Your task to perform on an android device: Add "acer nitro" to the cart on newegg Image 0: 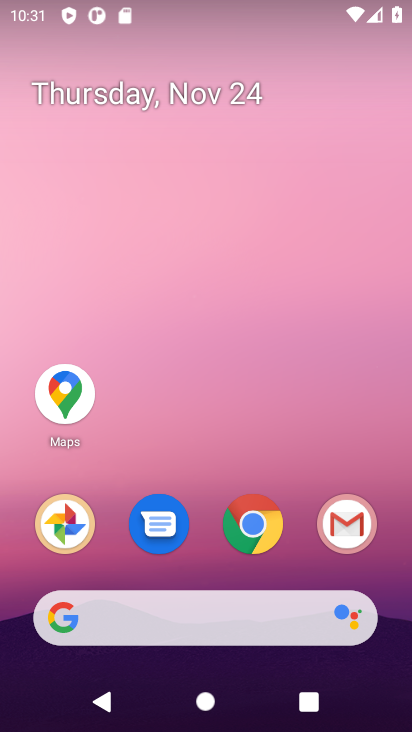
Step 0: click (254, 527)
Your task to perform on an android device: Add "acer nitro" to the cart on newegg Image 1: 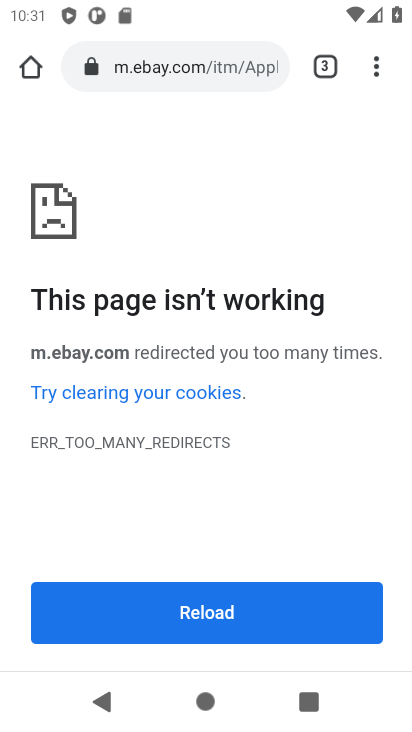
Step 1: click (139, 70)
Your task to perform on an android device: Add "acer nitro" to the cart on newegg Image 2: 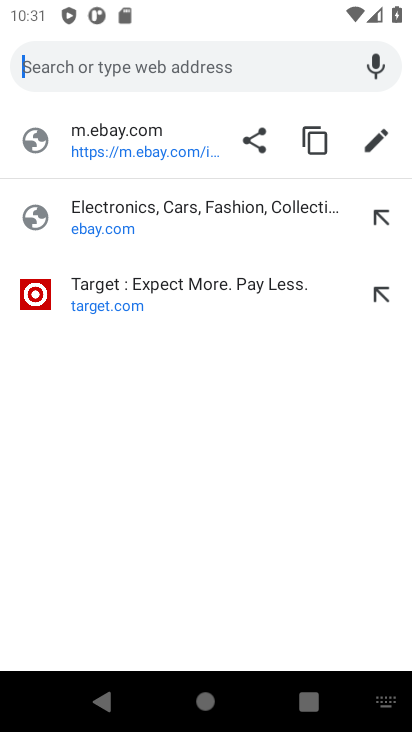
Step 2: type "newegg.com"
Your task to perform on an android device: Add "acer nitro" to the cart on newegg Image 3: 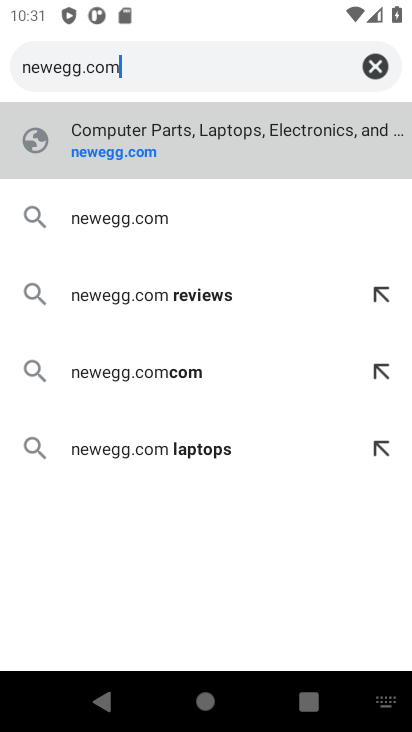
Step 3: click (104, 154)
Your task to perform on an android device: Add "acer nitro" to the cart on newegg Image 4: 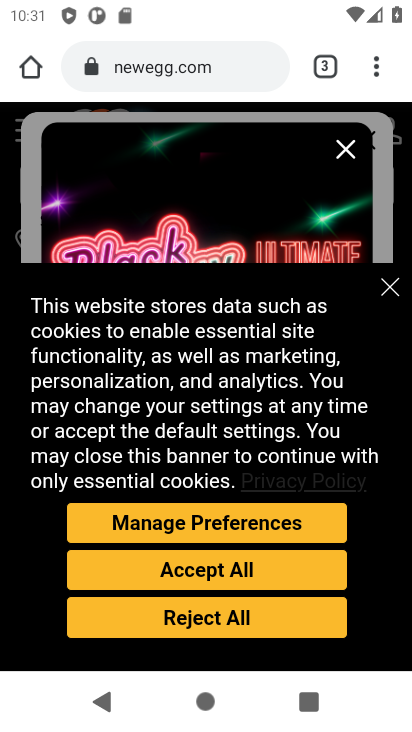
Step 4: click (388, 292)
Your task to perform on an android device: Add "acer nitro" to the cart on newegg Image 5: 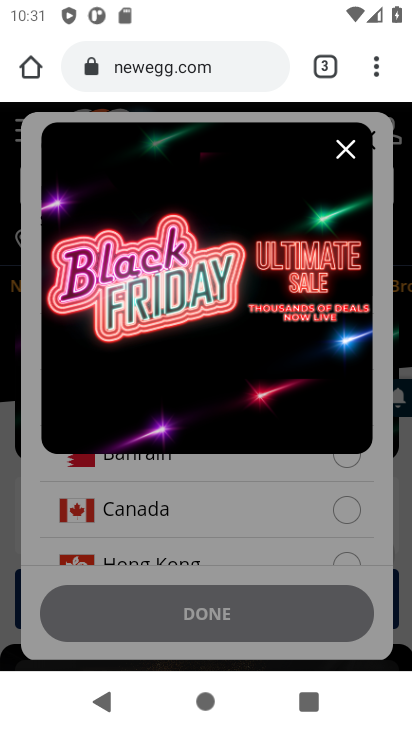
Step 5: click (344, 150)
Your task to perform on an android device: Add "acer nitro" to the cart on newegg Image 6: 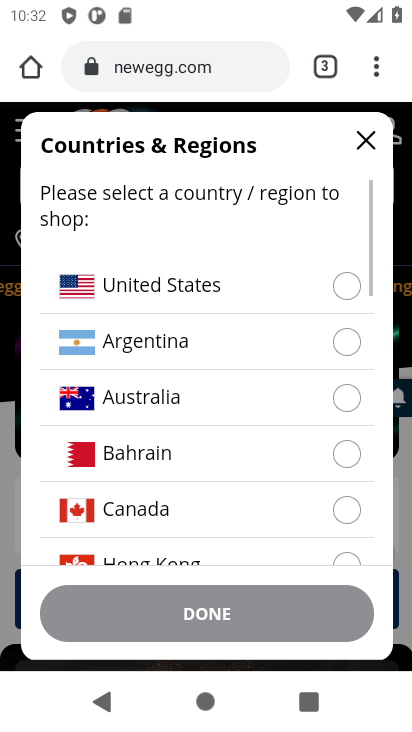
Step 6: click (154, 287)
Your task to perform on an android device: Add "acer nitro" to the cart on newegg Image 7: 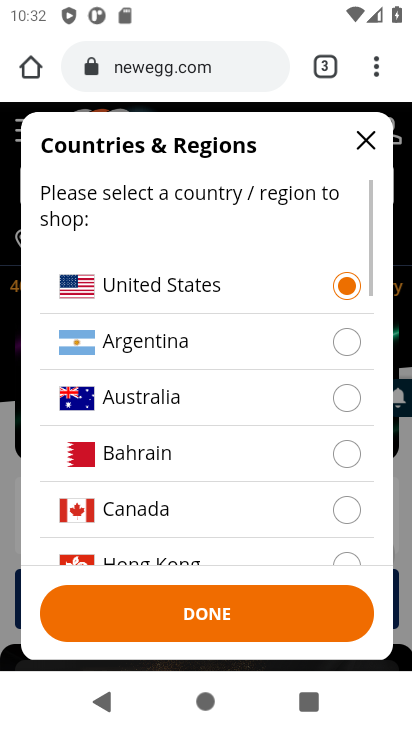
Step 7: click (183, 618)
Your task to perform on an android device: Add "acer nitro" to the cart on newegg Image 8: 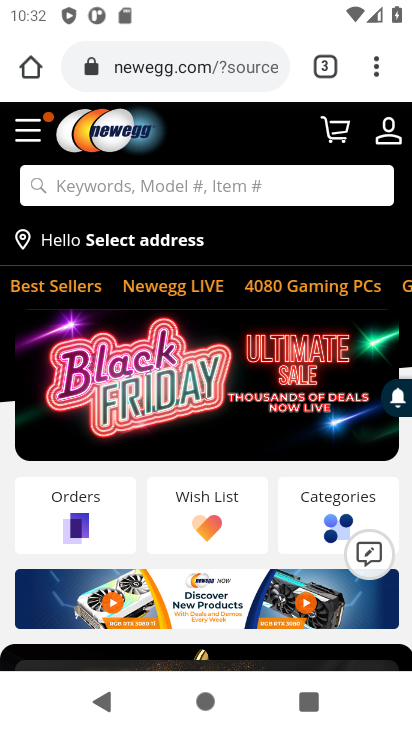
Step 8: click (70, 191)
Your task to perform on an android device: Add "acer nitro" to the cart on newegg Image 9: 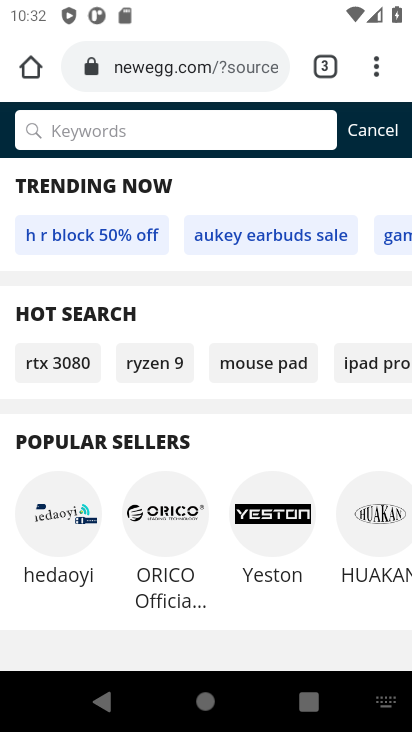
Step 9: type "acer nitro"
Your task to perform on an android device: Add "acer nitro" to the cart on newegg Image 10: 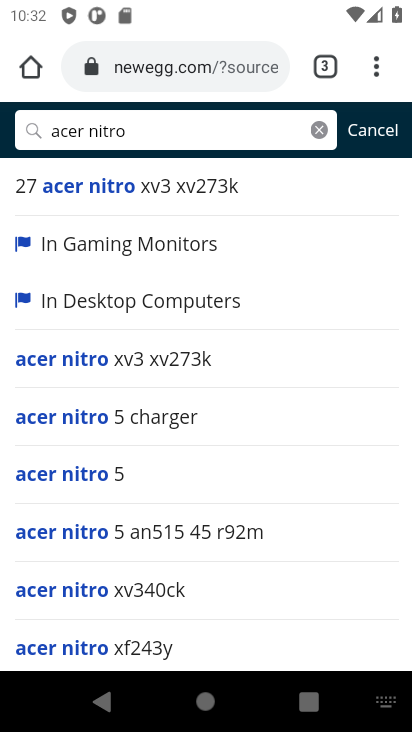
Step 10: click (72, 477)
Your task to perform on an android device: Add "acer nitro" to the cart on newegg Image 11: 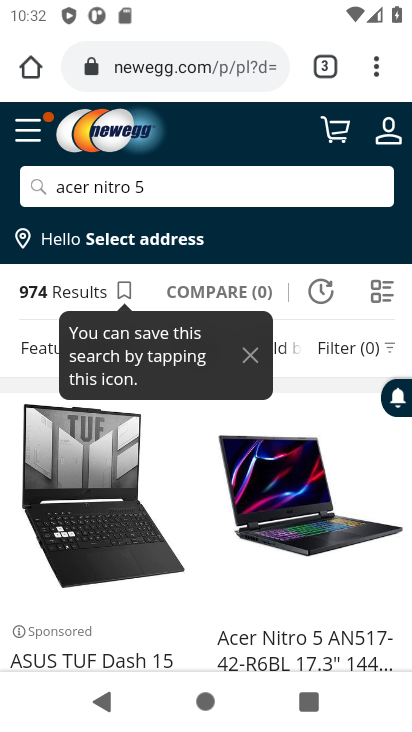
Step 11: drag from (152, 507) to (143, 357)
Your task to perform on an android device: Add "acer nitro" to the cart on newegg Image 12: 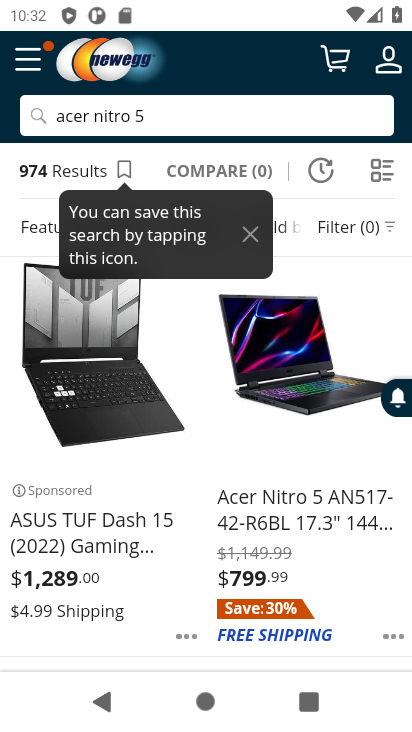
Step 12: click (283, 403)
Your task to perform on an android device: Add "acer nitro" to the cart on newegg Image 13: 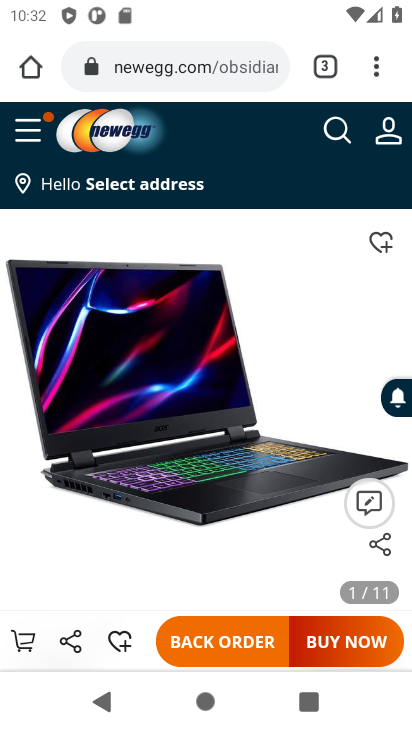
Step 13: drag from (172, 501) to (134, 314)
Your task to perform on an android device: Add "acer nitro" to the cart on newegg Image 14: 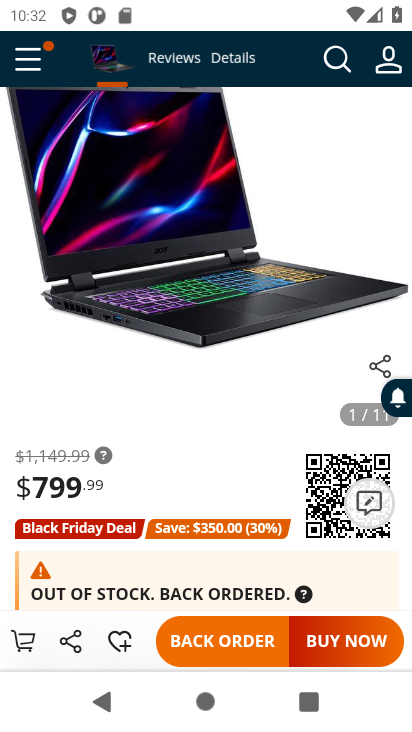
Step 14: drag from (133, 313) to (148, 432)
Your task to perform on an android device: Add "acer nitro" to the cart on newegg Image 15: 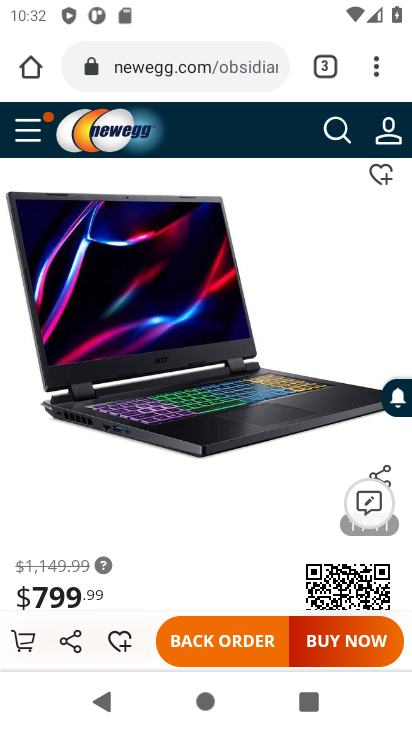
Step 15: press back button
Your task to perform on an android device: Add "acer nitro" to the cart on newegg Image 16: 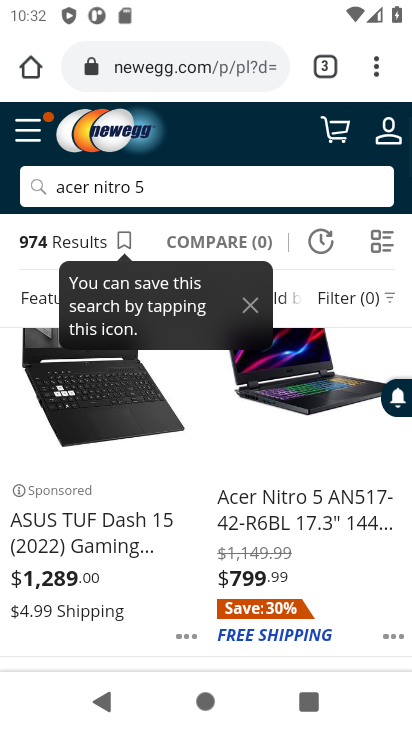
Step 16: drag from (90, 563) to (90, 344)
Your task to perform on an android device: Add "acer nitro" to the cart on newegg Image 17: 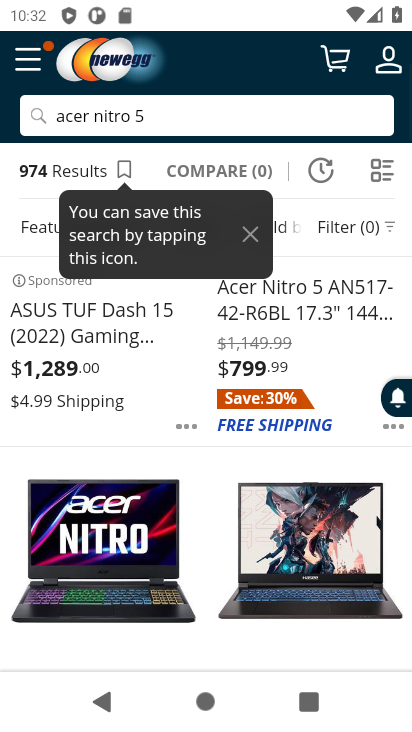
Step 17: drag from (98, 557) to (94, 309)
Your task to perform on an android device: Add "acer nitro" to the cart on newegg Image 18: 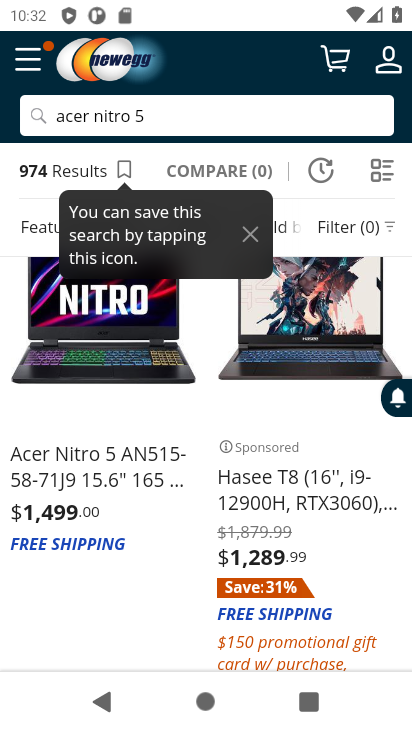
Step 18: click (55, 458)
Your task to perform on an android device: Add "acer nitro" to the cart on newegg Image 19: 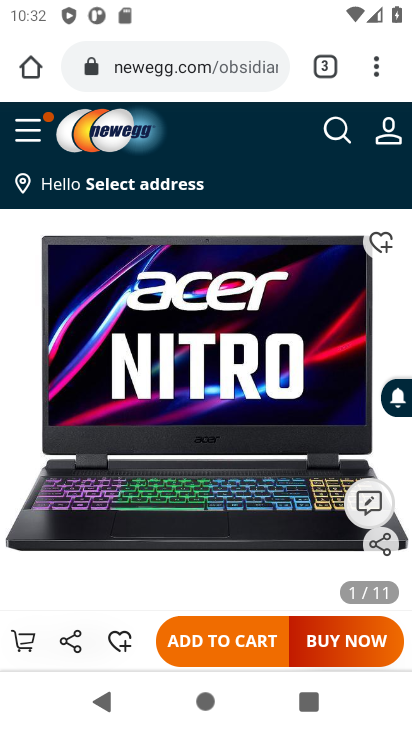
Step 19: click (207, 655)
Your task to perform on an android device: Add "acer nitro" to the cart on newegg Image 20: 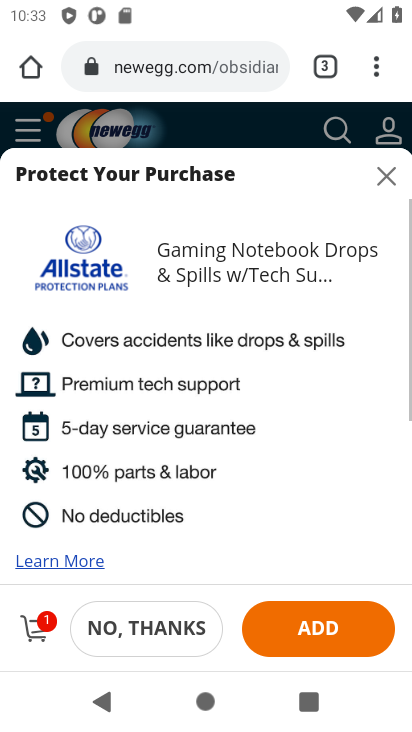
Step 20: task complete